Your task to perform on an android device: visit the assistant section in the google photos Image 0: 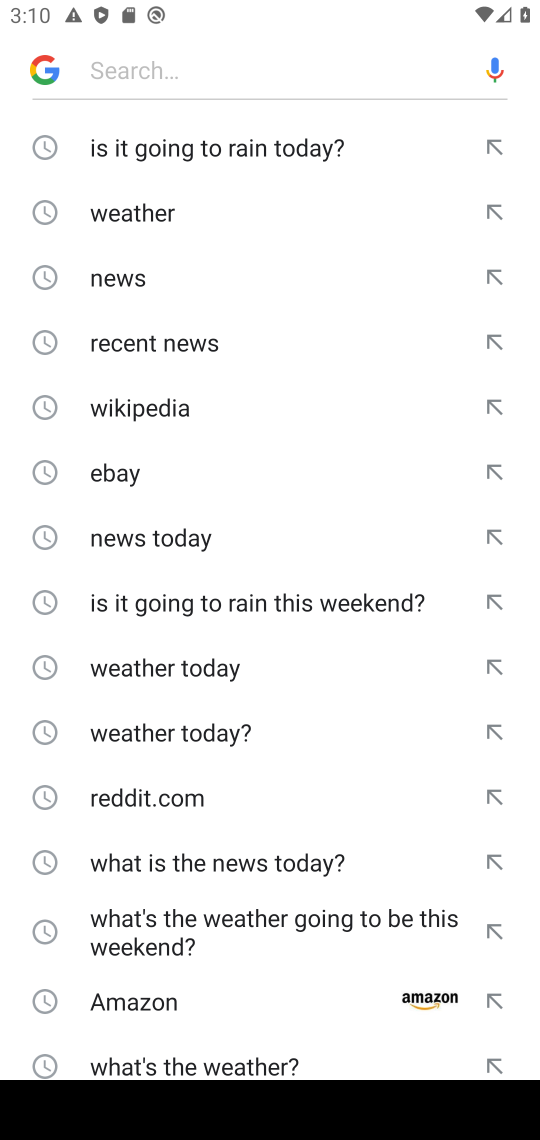
Step 0: press home button
Your task to perform on an android device: visit the assistant section in the google photos Image 1: 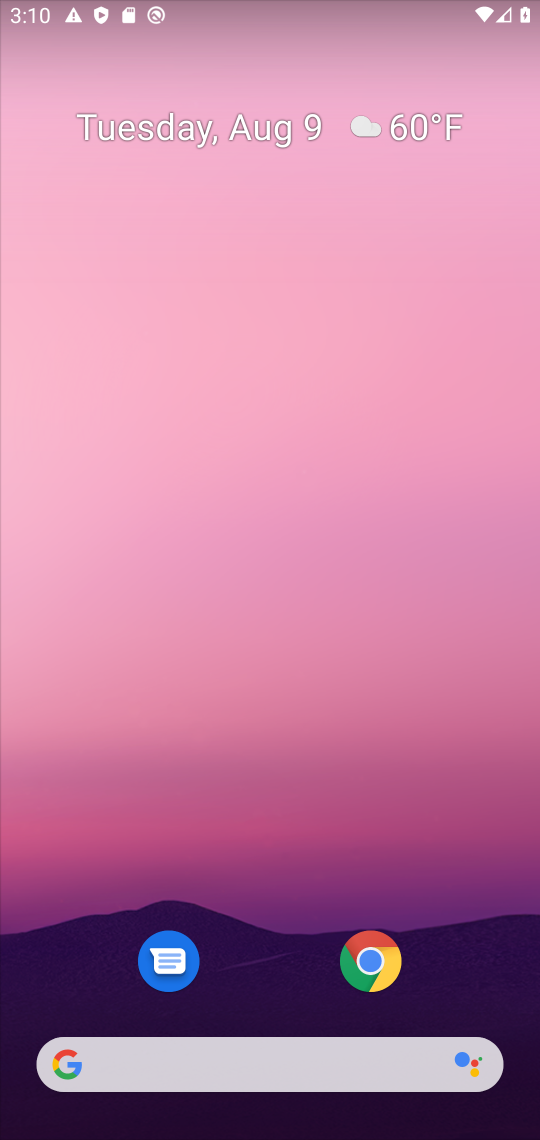
Step 1: drag from (243, 1021) to (354, 397)
Your task to perform on an android device: visit the assistant section in the google photos Image 2: 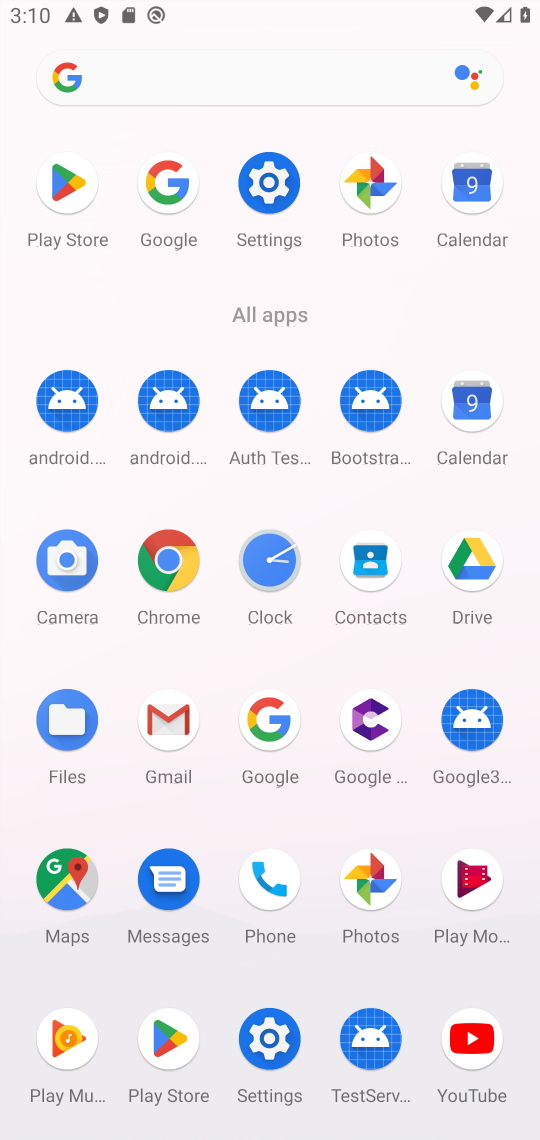
Step 2: click (383, 186)
Your task to perform on an android device: visit the assistant section in the google photos Image 3: 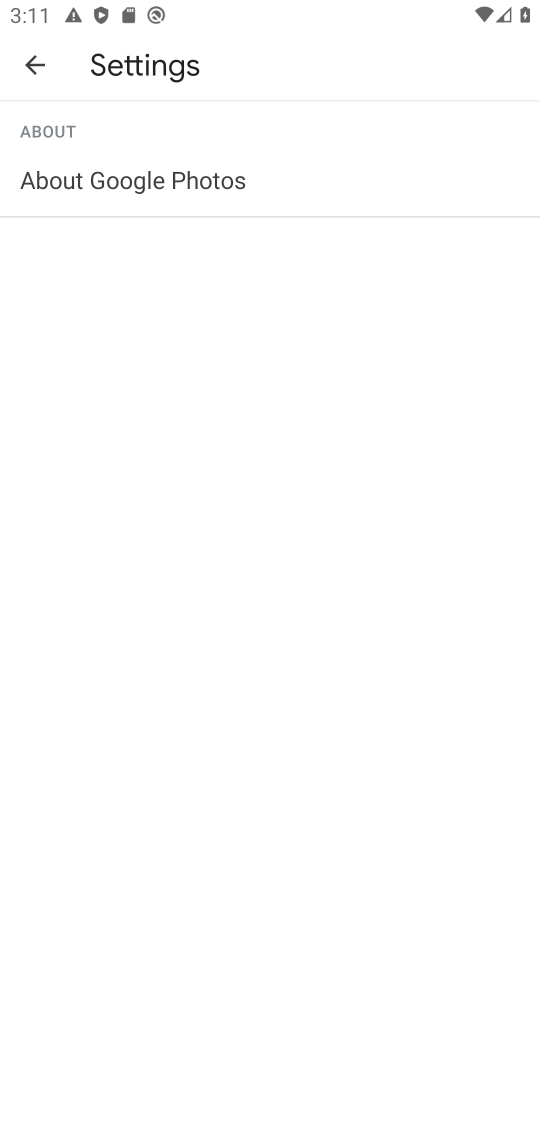
Step 3: click (36, 69)
Your task to perform on an android device: visit the assistant section in the google photos Image 4: 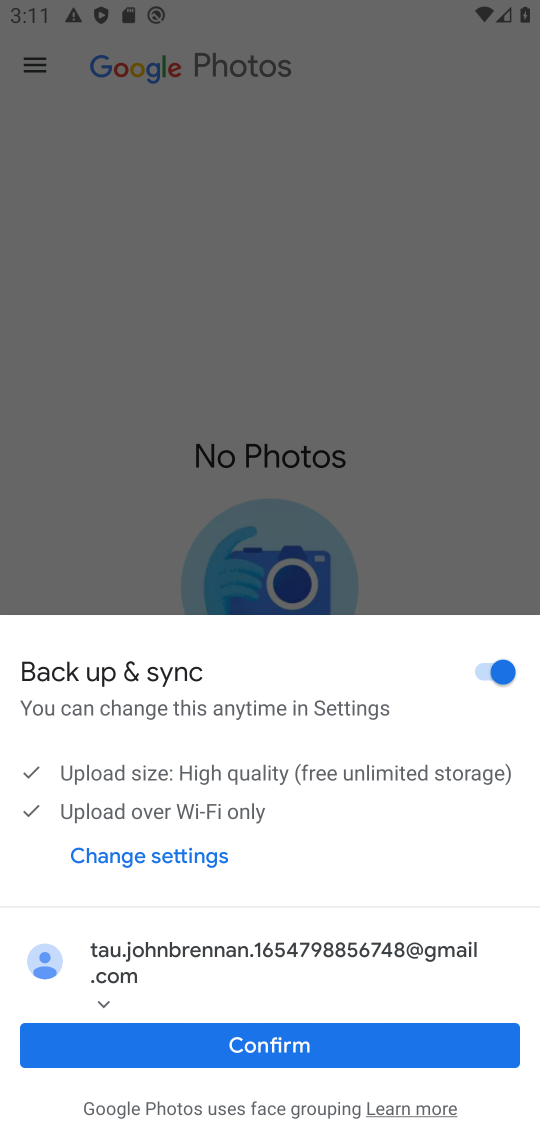
Step 4: click (286, 1041)
Your task to perform on an android device: visit the assistant section in the google photos Image 5: 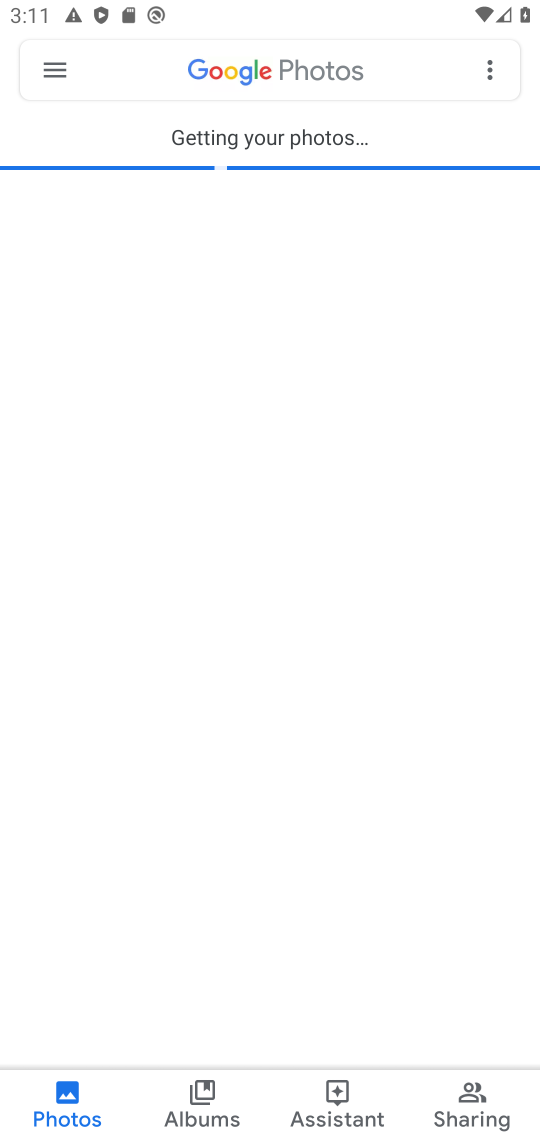
Step 5: click (339, 1105)
Your task to perform on an android device: visit the assistant section in the google photos Image 6: 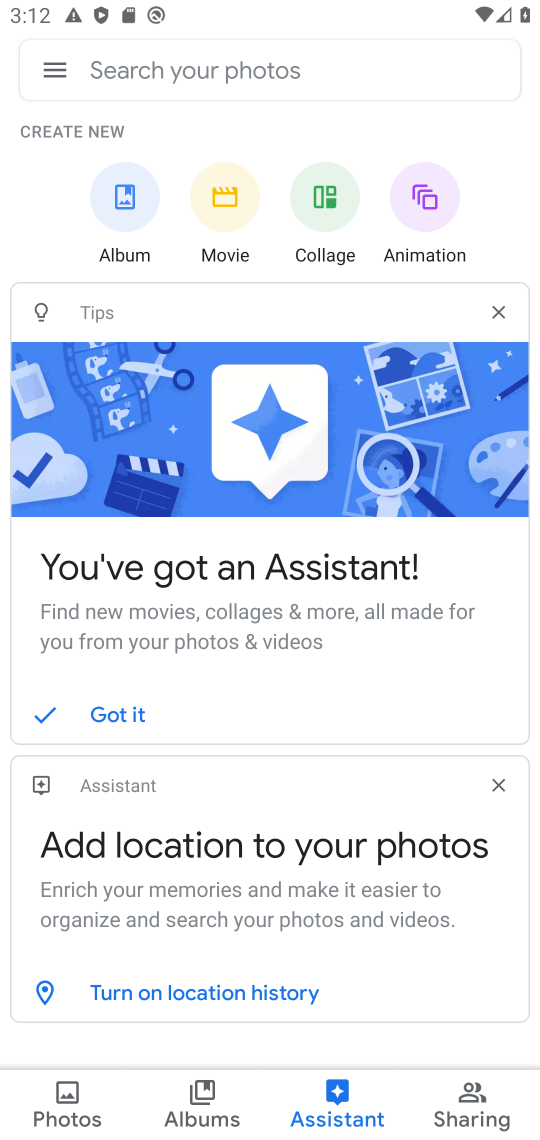
Step 6: task complete